Your task to perform on an android device: open chrome privacy settings Image 0: 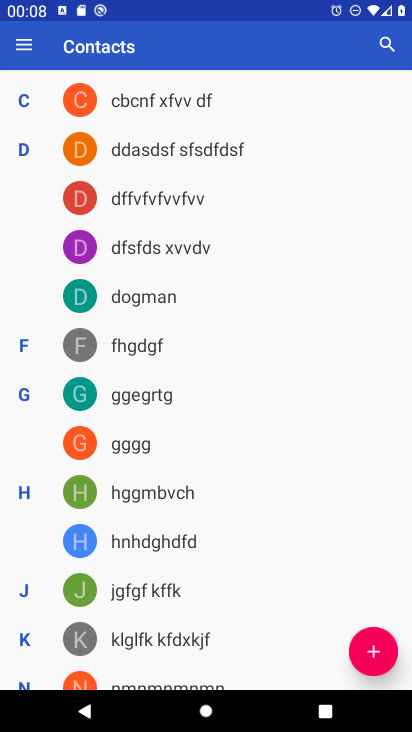
Step 0: press home button
Your task to perform on an android device: open chrome privacy settings Image 1: 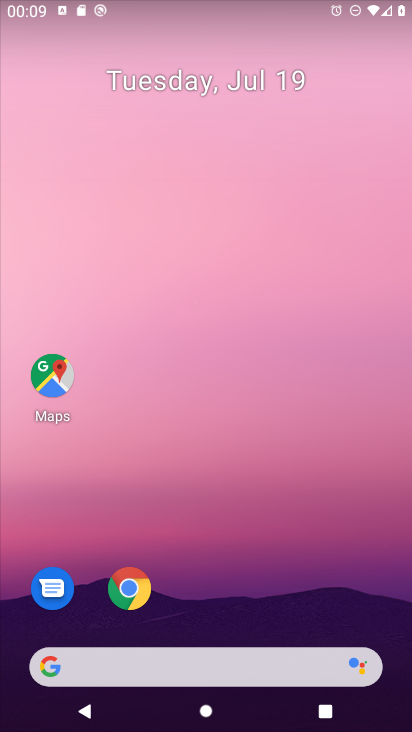
Step 1: click (126, 584)
Your task to perform on an android device: open chrome privacy settings Image 2: 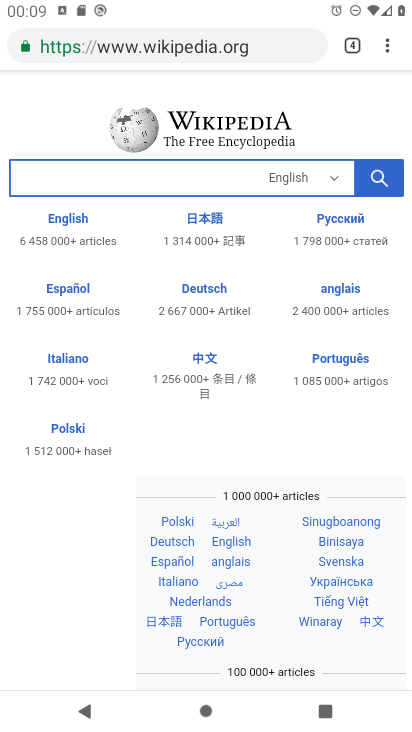
Step 2: click (387, 55)
Your task to perform on an android device: open chrome privacy settings Image 3: 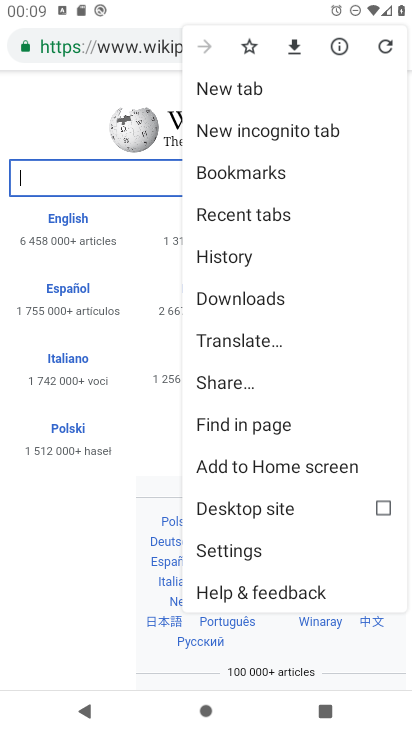
Step 3: click (226, 547)
Your task to perform on an android device: open chrome privacy settings Image 4: 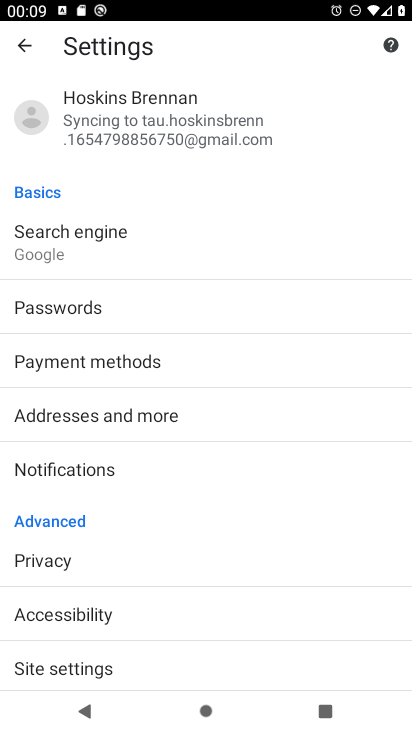
Step 4: click (48, 568)
Your task to perform on an android device: open chrome privacy settings Image 5: 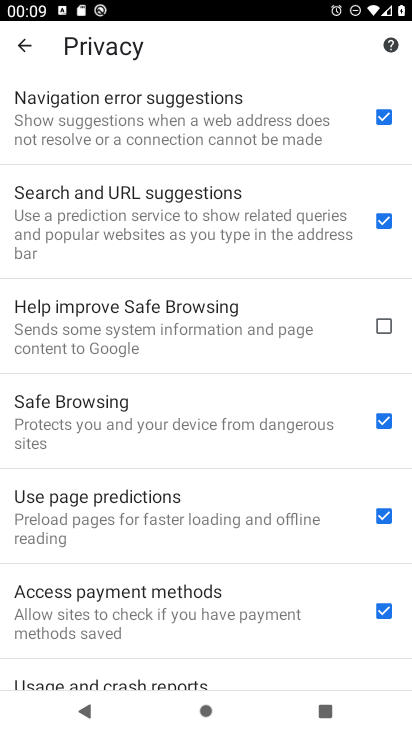
Step 5: task complete